Your task to perform on an android device: toggle data saver in the chrome app Image 0: 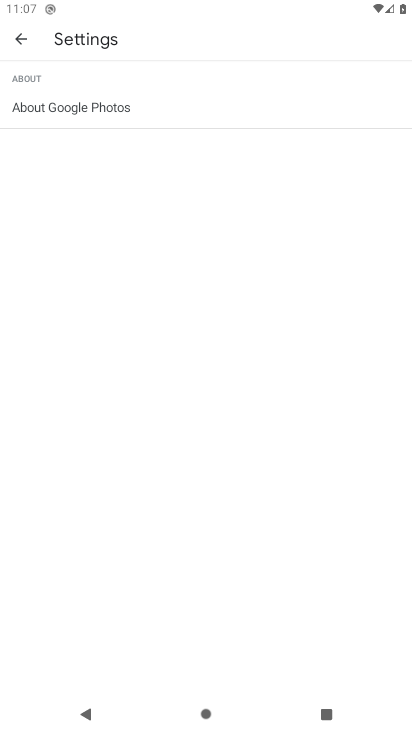
Step 0: press home button
Your task to perform on an android device: toggle data saver in the chrome app Image 1: 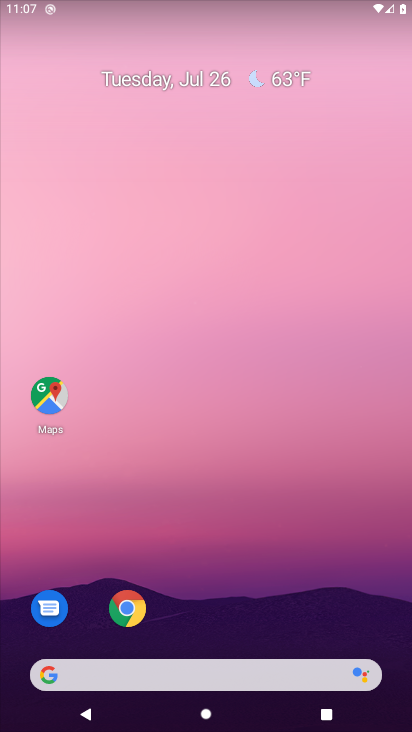
Step 1: click (123, 612)
Your task to perform on an android device: toggle data saver in the chrome app Image 2: 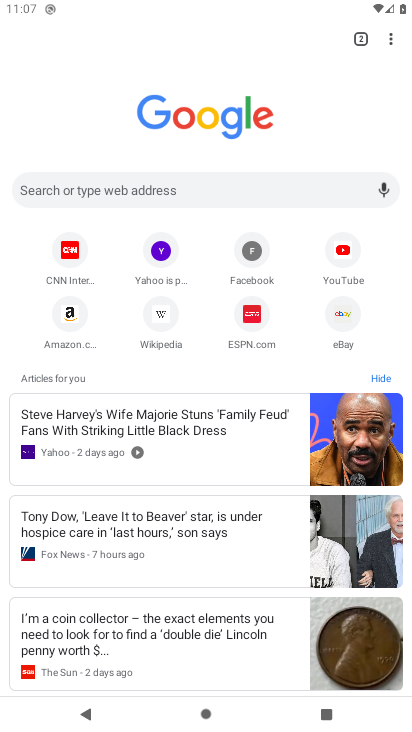
Step 2: drag from (385, 41) to (248, 328)
Your task to perform on an android device: toggle data saver in the chrome app Image 3: 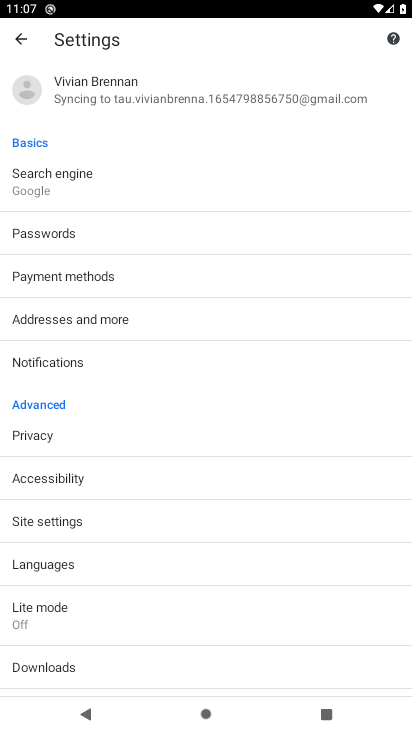
Step 3: click (68, 611)
Your task to perform on an android device: toggle data saver in the chrome app Image 4: 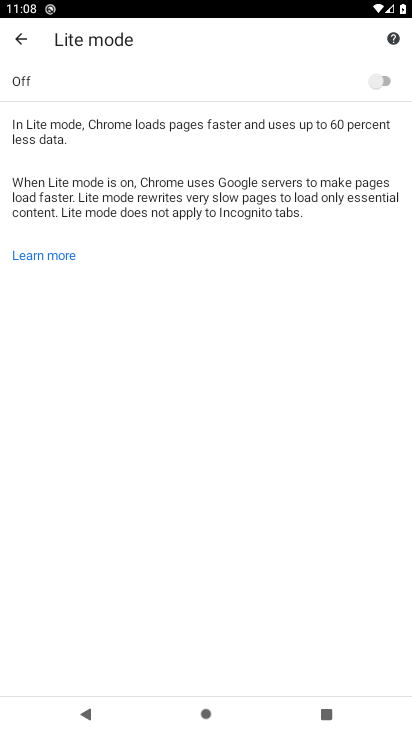
Step 4: click (385, 81)
Your task to perform on an android device: toggle data saver in the chrome app Image 5: 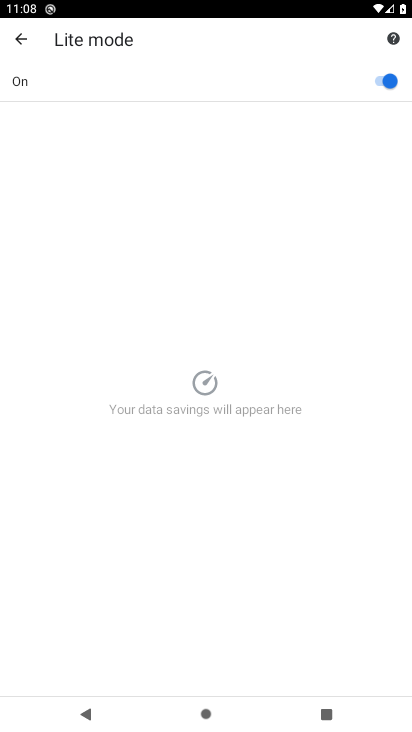
Step 5: task complete